Your task to perform on an android device: Do I have any events tomorrow? Image 0: 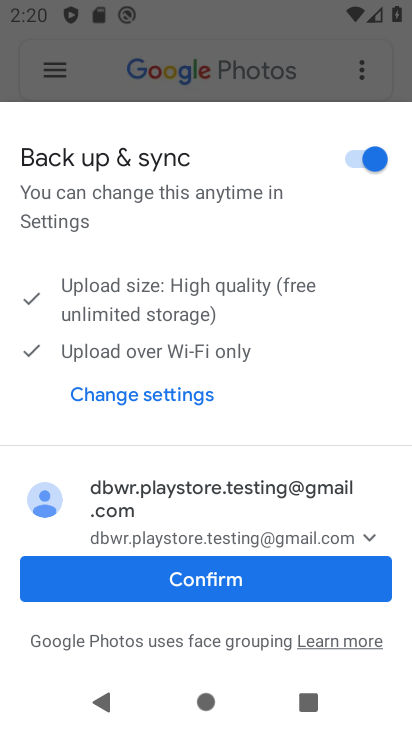
Step 0: click (168, 568)
Your task to perform on an android device: Do I have any events tomorrow? Image 1: 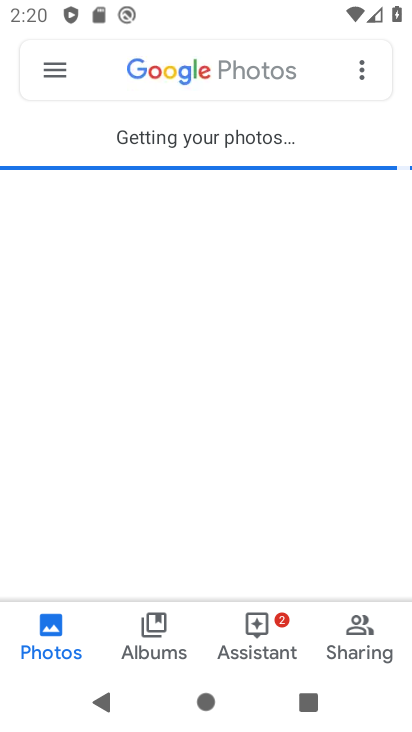
Step 1: press home button
Your task to perform on an android device: Do I have any events tomorrow? Image 2: 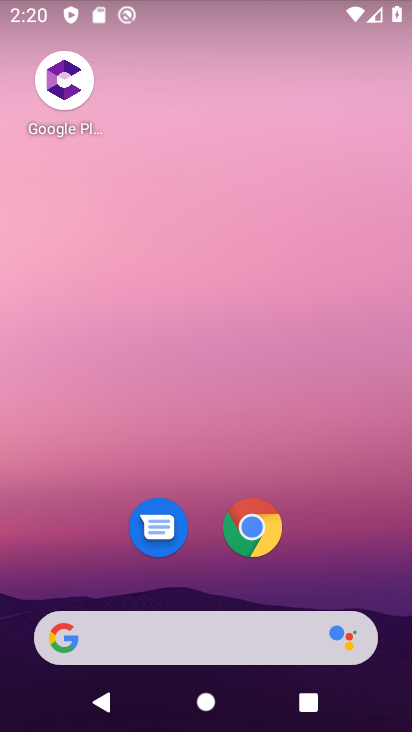
Step 2: drag from (132, 615) to (220, 124)
Your task to perform on an android device: Do I have any events tomorrow? Image 3: 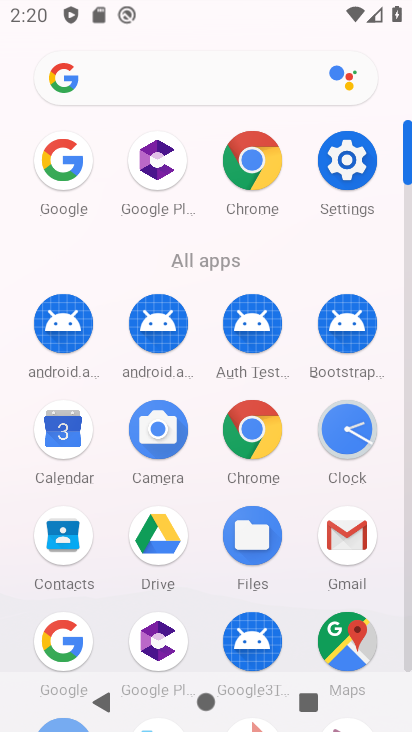
Step 3: click (74, 437)
Your task to perform on an android device: Do I have any events tomorrow? Image 4: 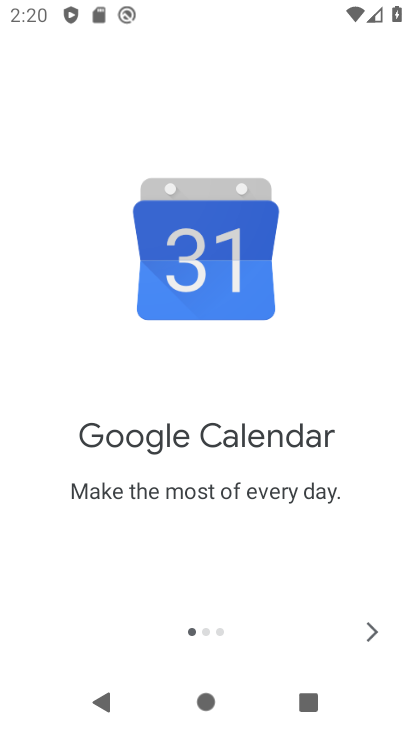
Step 4: click (367, 639)
Your task to perform on an android device: Do I have any events tomorrow? Image 5: 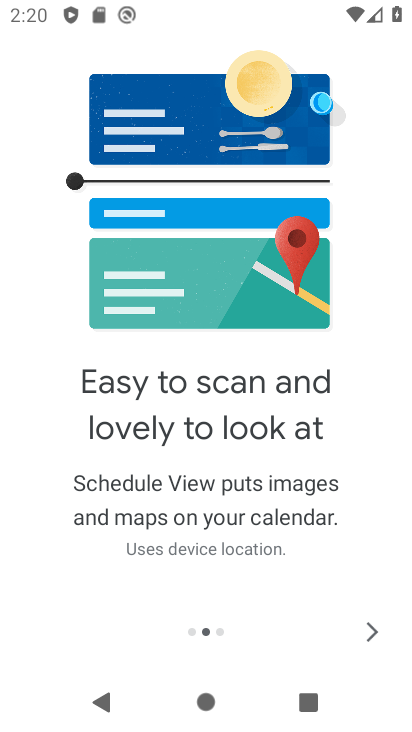
Step 5: click (367, 639)
Your task to perform on an android device: Do I have any events tomorrow? Image 6: 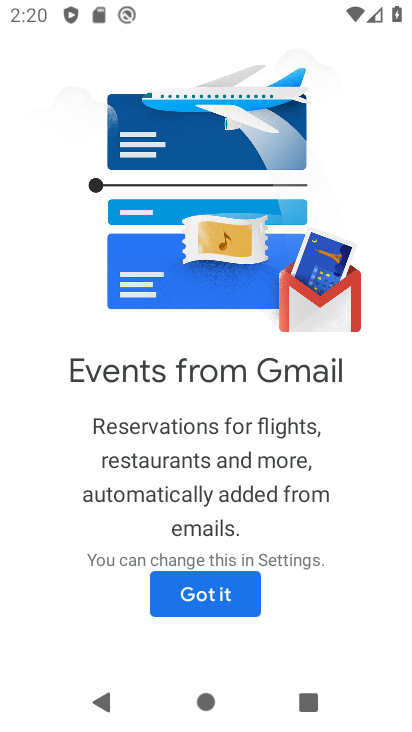
Step 6: click (242, 588)
Your task to perform on an android device: Do I have any events tomorrow? Image 7: 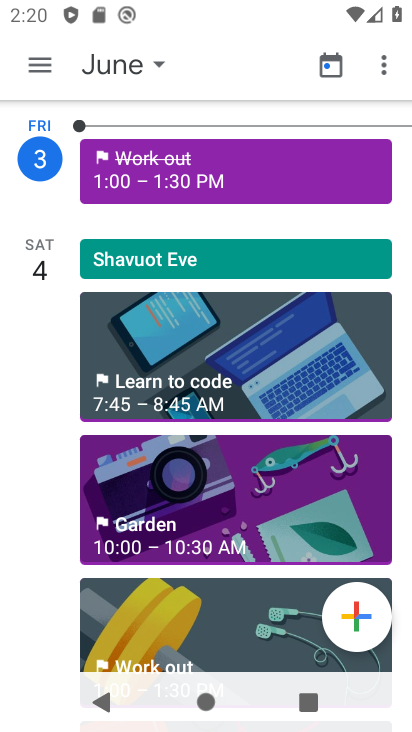
Step 7: task complete